Your task to perform on an android device: clear all cookies in the chrome app Image 0: 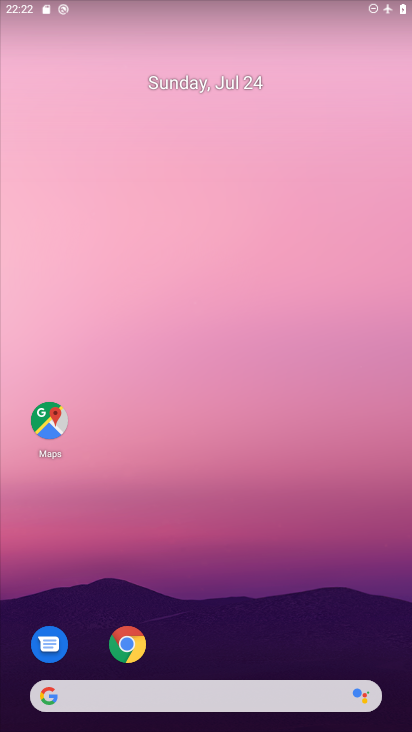
Step 0: click (128, 643)
Your task to perform on an android device: clear all cookies in the chrome app Image 1: 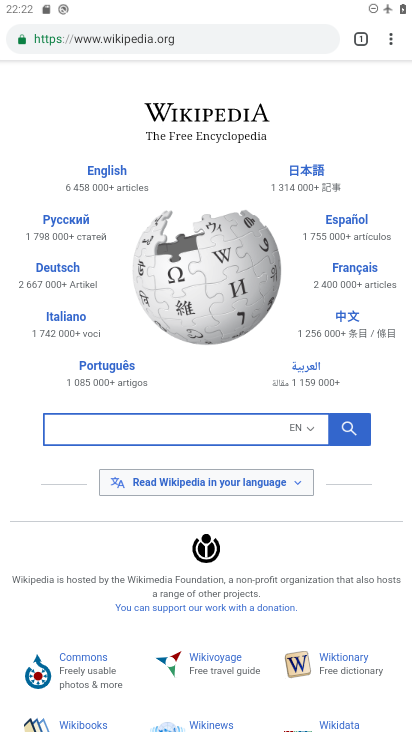
Step 1: click (387, 43)
Your task to perform on an android device: clear all cookies in the chrome app Image 2: 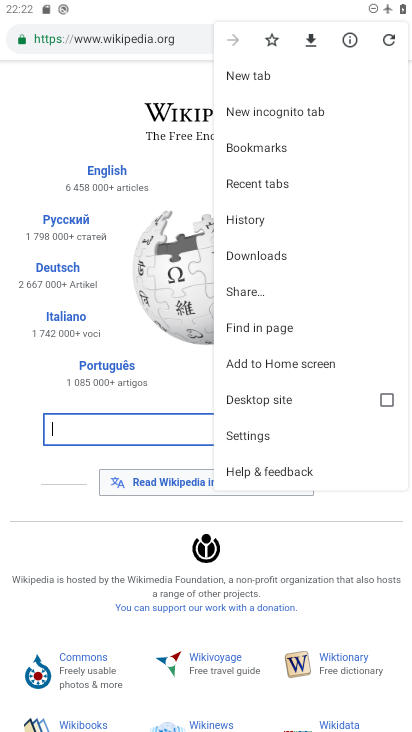
Step 2: click (242, 217)
Your task to perform on an android device: clear all cookies in the chrome app Image 3: 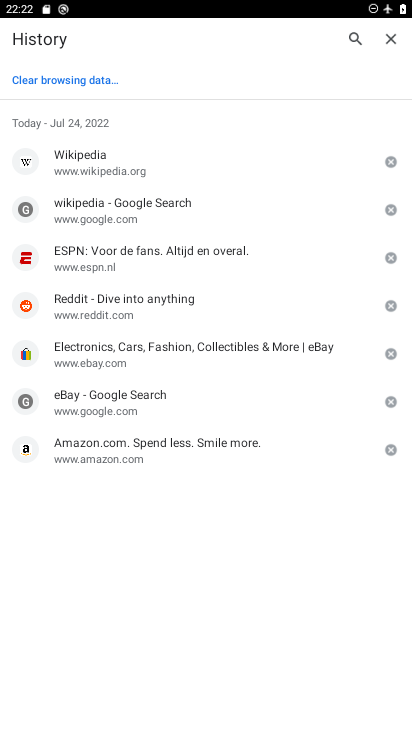
Step 3: click (58, 75)
Your task to perform on an android device: clear all cookies in the chrome app Image 4: 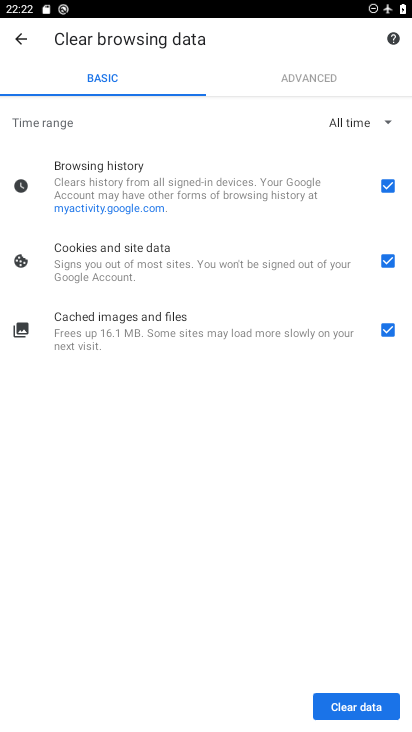
Step 4: click (387, 184)
Your task to perform on an android device: clear all cookies in the chrome app Image 5: 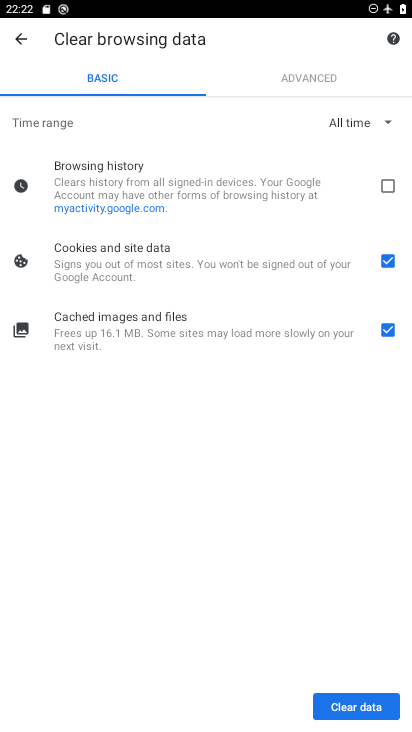
Step 5: click (384, 327)
Your task to perform on an android device: clear all cookies in the chrome app Image 6: 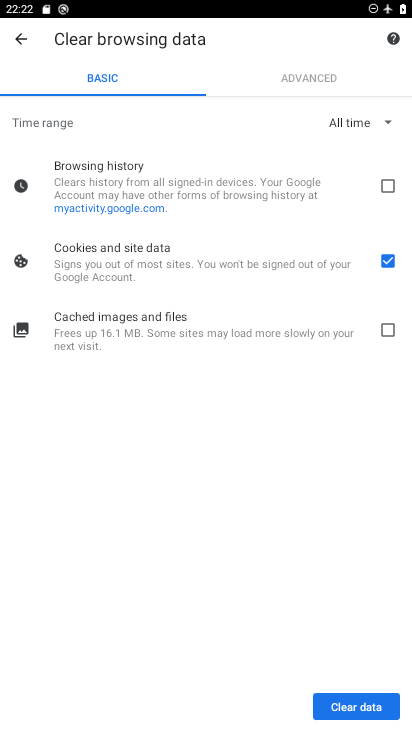
Step 6: click (355, 705)
Your task to perform on an android device: clear all cookies in the chrome app Image 7: 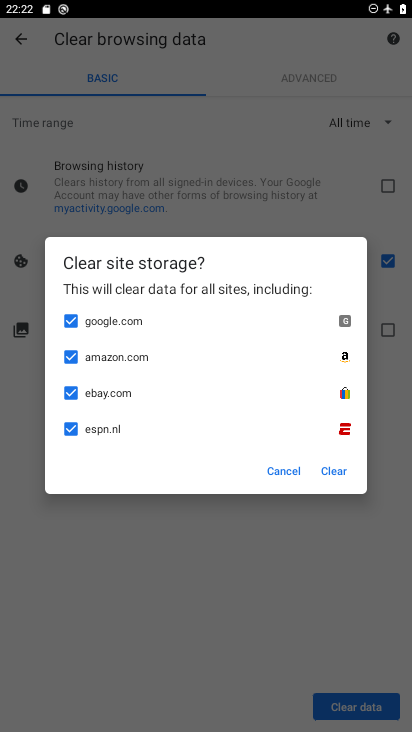
Step 7: click (332, 468)
Your task to perform on an android device: clear all cookies in the chrome app Image 8: 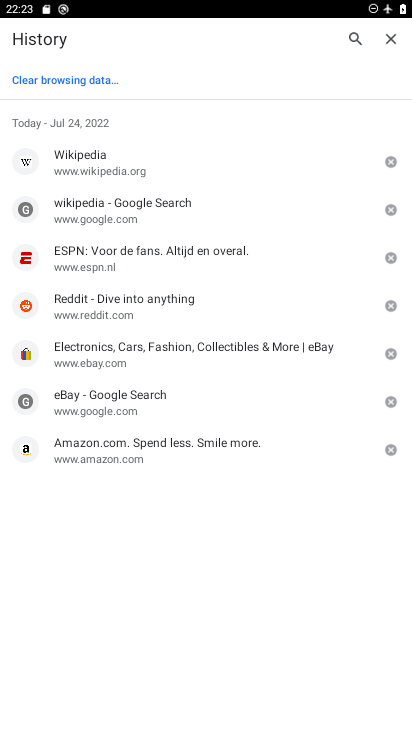
Step 8: task complete